Your task to perform on an android device: toggle pop-ups in chrome Image 0: 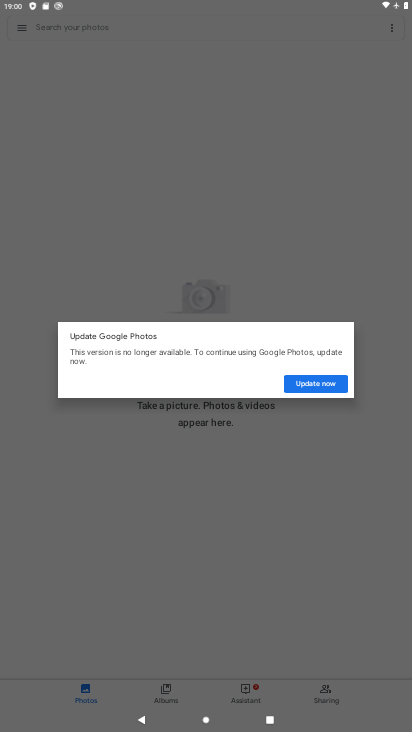
Step 0: press home button
Your task to perform on an android device: toggle pop-ups in chrome Image 1: 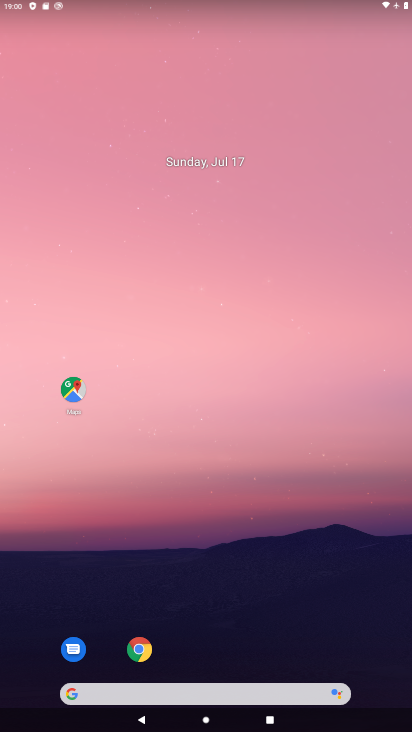
Step 1: click (134, 649)
Your task to perform on an android device: toggle pop-ups in chrome Image 2: 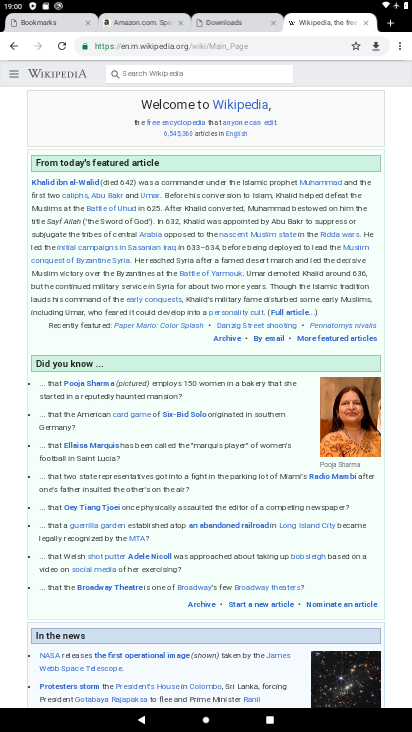
Step 2: click (404, 40)
Your task to perform on an android device: toggle pop-ups in chrome Image 3: 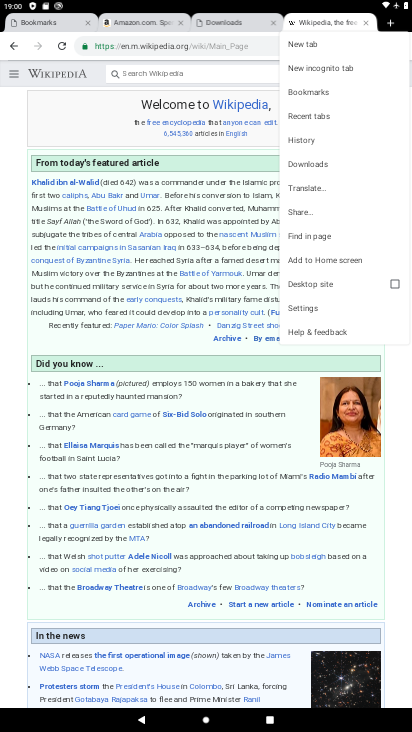
Step 3: click (309, 306)
Your task to perform on an android device: toggle pop-ups in chrome Image 4: 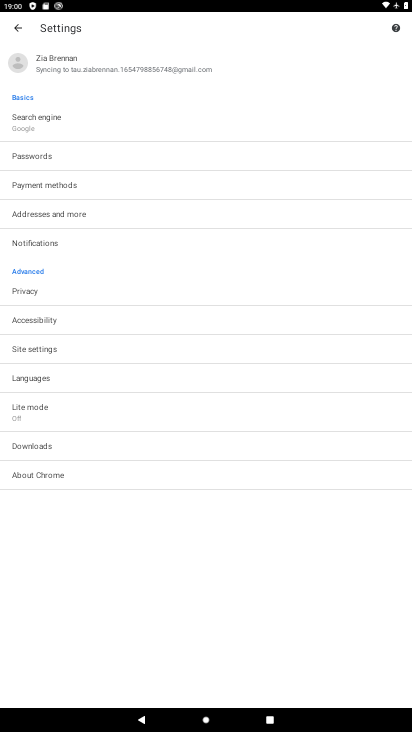
Step 4: click (39, 345)
Your task to perform on an android device: toggle pop-ups in chrome Image 5: 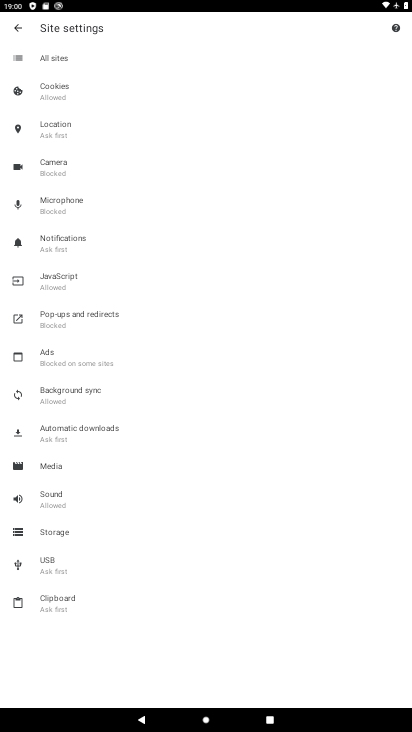
Step 5: click (67, 315)
Your task to perform on an android device: toggle pop-ups in chrome Image 6: 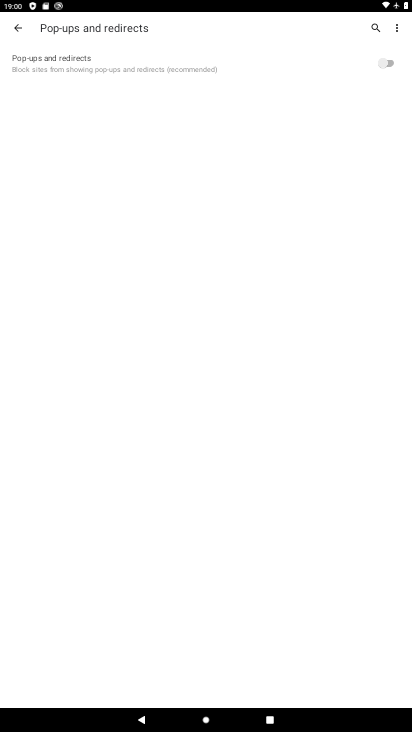
Step 6: click (385, 58)
Your task to perform on an android device: toggle pop-ups in chrome Image 7: 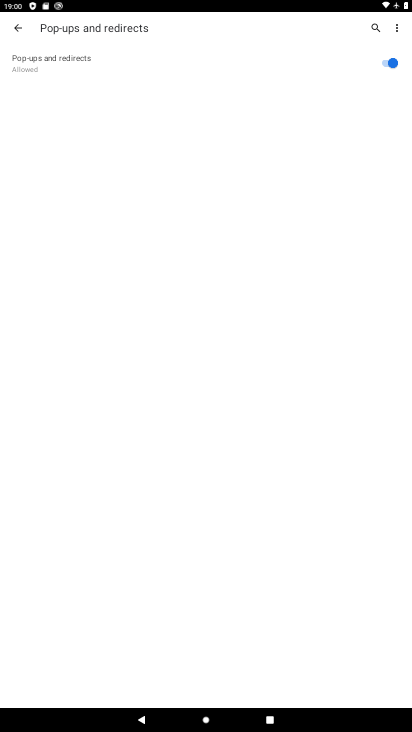
Step 7: task complete